Your task to perform on an android device: Turn off the flashlight Image 0: 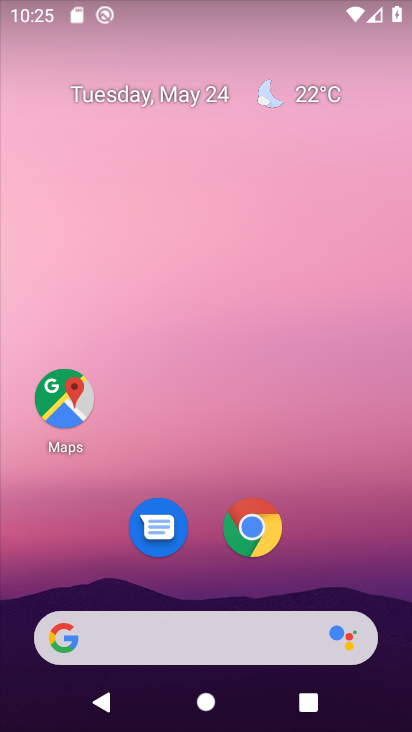
Step 0: press home button
Your task to perform on an android device: Turn off the flashlight Image 1: 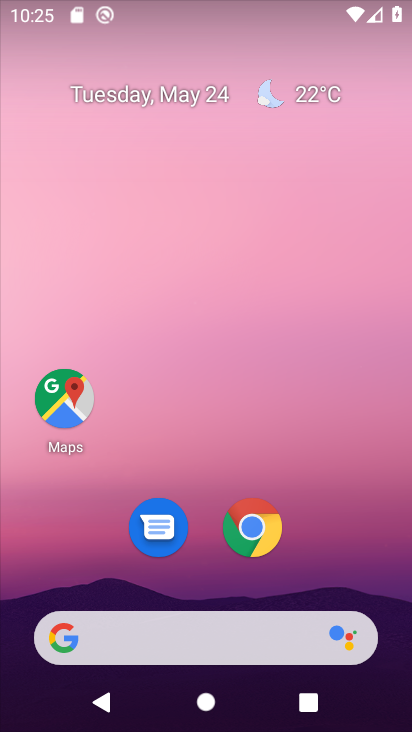
Step 1: task complete